Your task to perform on an android device: set the stopwatch Image 0: 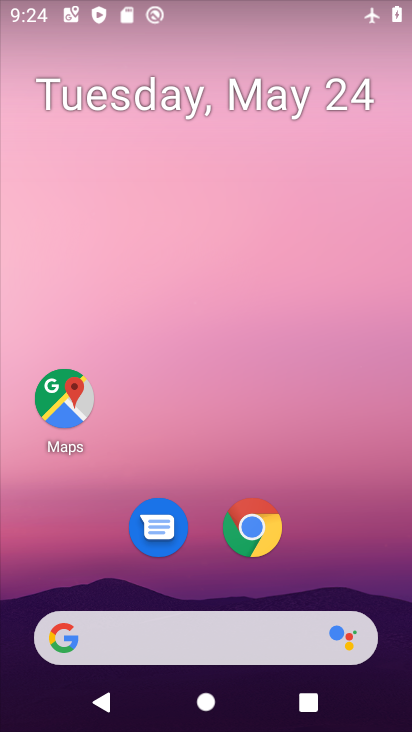
Step 0: drag from (393, 638) to (357, 158)
Your task to perform on an android device: set the stopwatch Image 1: 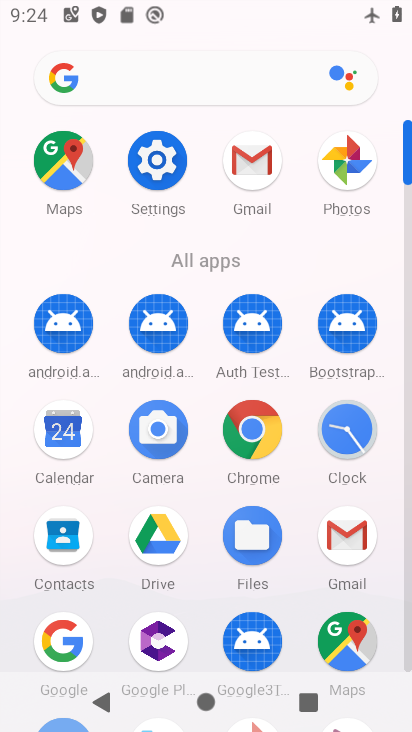
Step 1: click (334, 422)
Your task to perform on an android device: set the stopwatch Image 2: 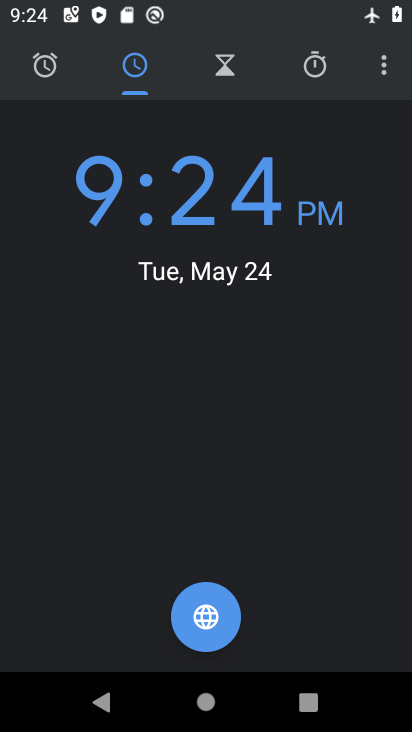
Step 2: click (303, 64)
Your task to perform on an android device: set the stopwatch Image 3: 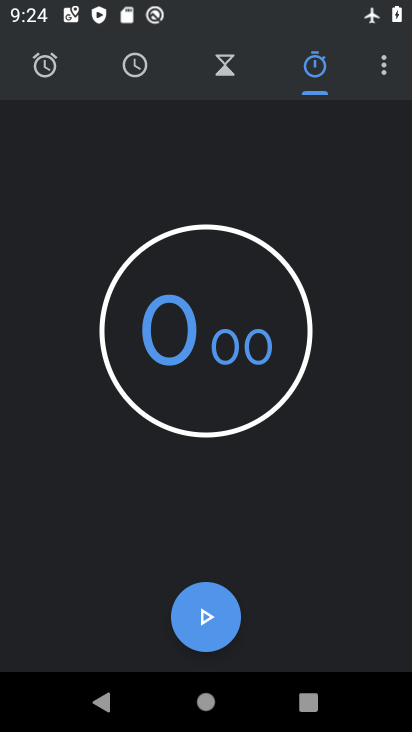
Step 3: click (218, 620)
Your task to perform on an android device: set the stopwatch Image 4: 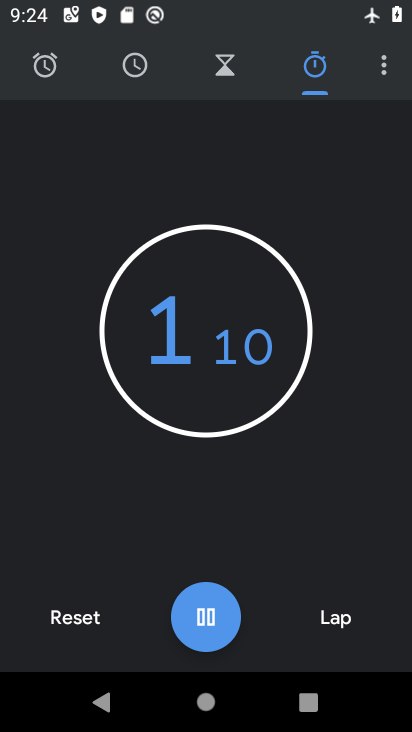
Step 4: task complete